Your task to perform on an android device: delete browsing data in the chrome app Image 0: 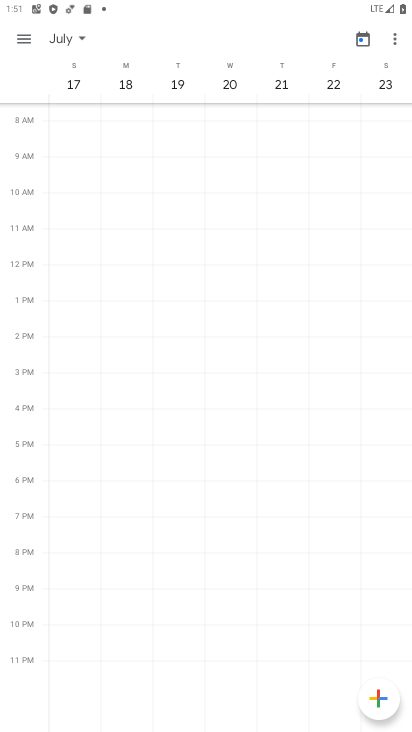
Step 0: press home button
Your task to perform on an android device: delete browsing data in the chrome app Image 1: 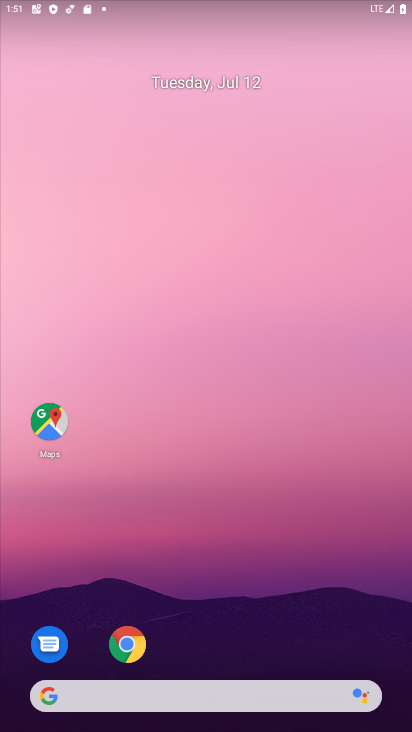
Step 1: click (130, 647)
Your task to perform on an android device: delete browsing data in the chrome app Image 2: 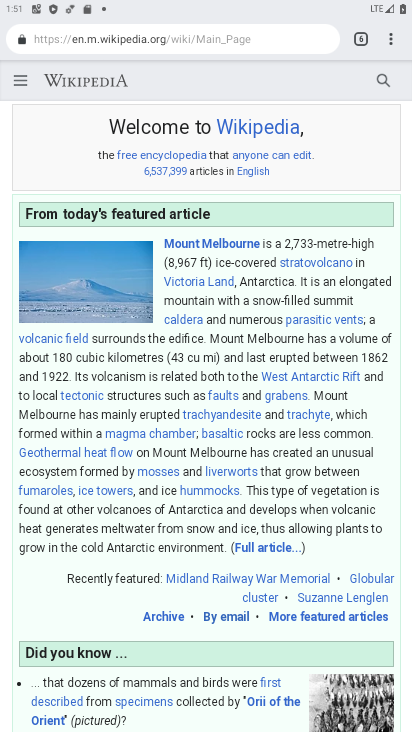
Step 2: click (392, 40)
Your task to perform on an android device: delete browsing data in the chrome app Image 3: 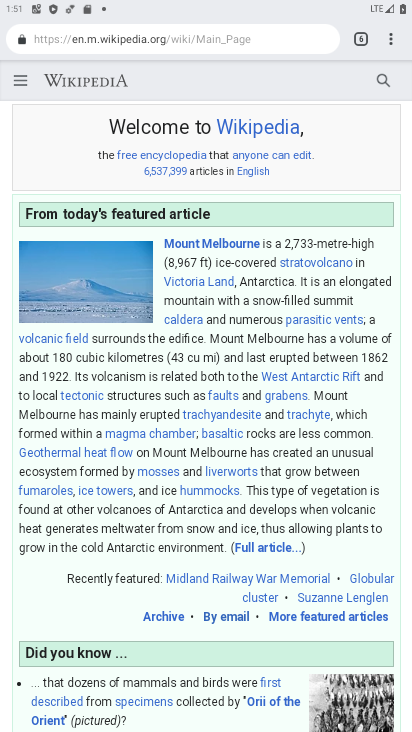
Step 3: drag from (384, 37) to (256, 462)
Your task to perform on an android device: delete browsing data in the chrome app Image 4: 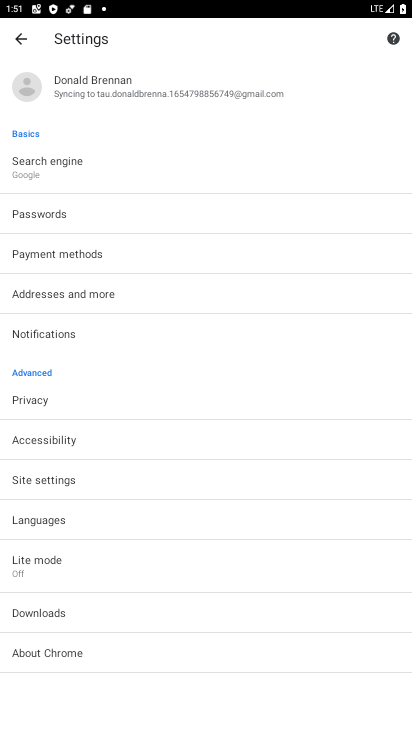
Step 4: click (22, 34)
Your task to perform on an android device: delete browsing data in the chrome app Image 5: 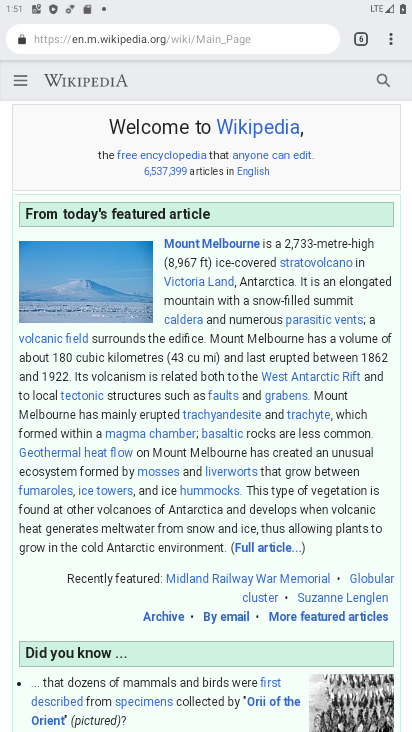
Step 5: click (393, 41)
Your task to perform on an android device: delete browsing data in the chrome app Image 6: 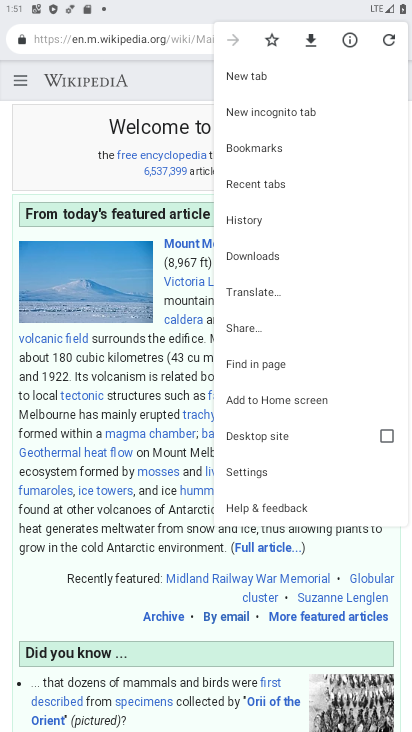
Step 6: click (247, 224)
Your task to perform on an android device: delete browsing data in the chrome app Image 7: 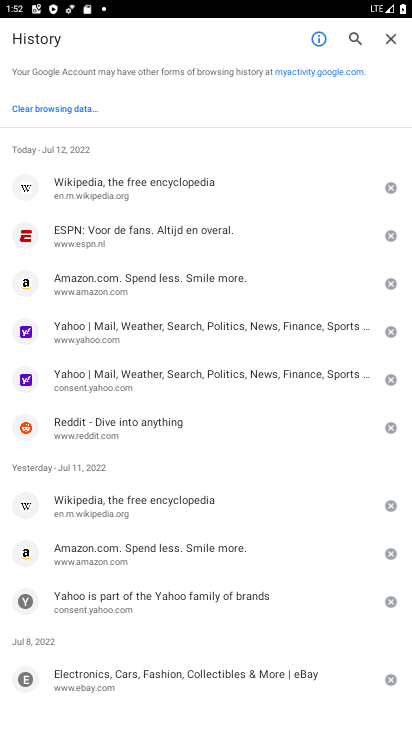
Step 7: click (40, 104)
Your task to perform on an android device: delete browsing data in the chrome app Image 8: 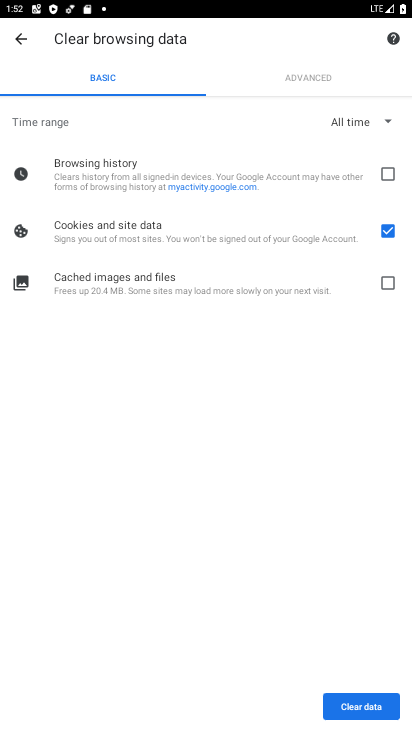
Step 8: click (393, 167)
Your task to perform on an android device: delete browsing data in the chrome app Image 9: 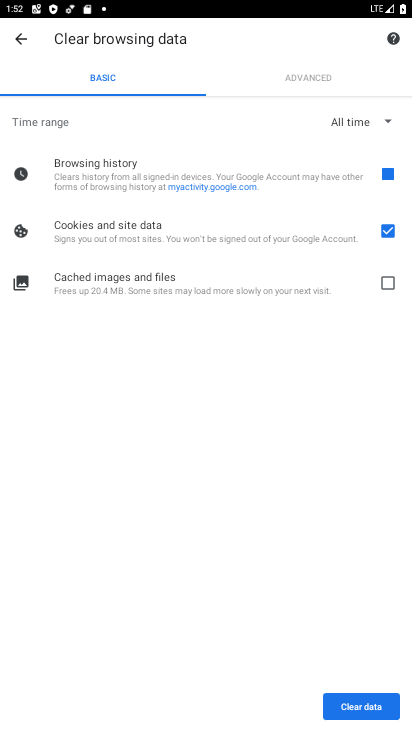
Step 9: click (390, 284)
Your task to perform on an android device: delete browsing data in the chrome app Image 10: 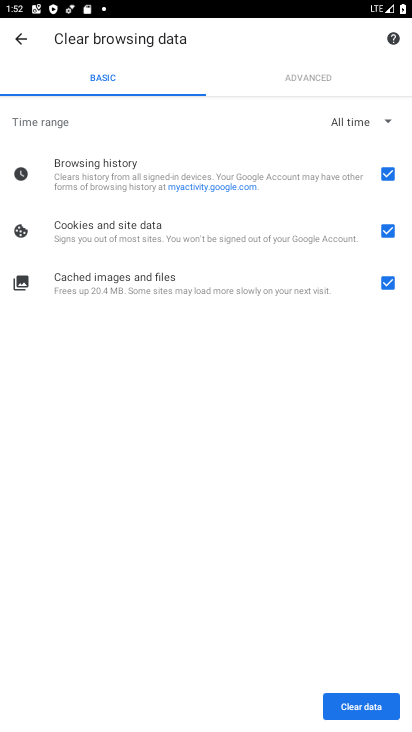
Step 10: click (370, 708)
Your task to perform on an android device: delete browsing data in the chrome app Image 11: 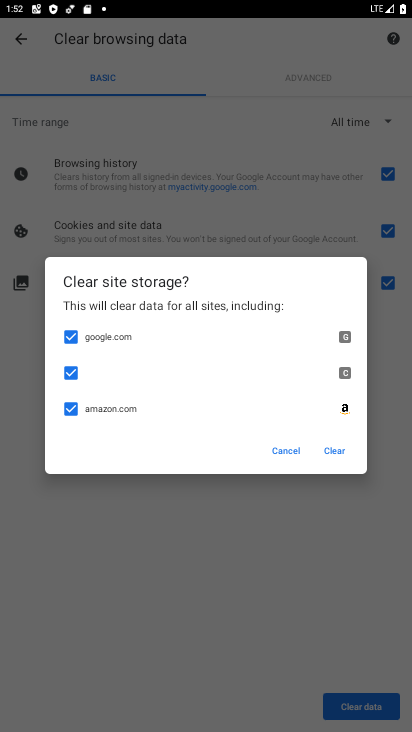
Step 11: click (335, 451)
Your task to perform on an android device: delete browsing data in the chrome app Image 12: 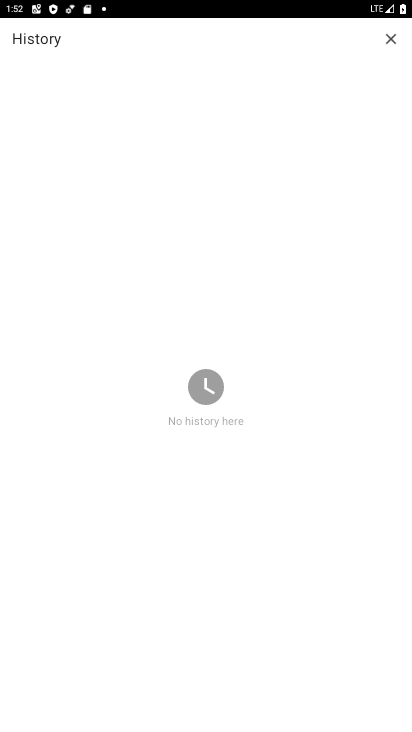
Step 12: task complete